Your task to perform on an android device: Open my contact list Image 0: 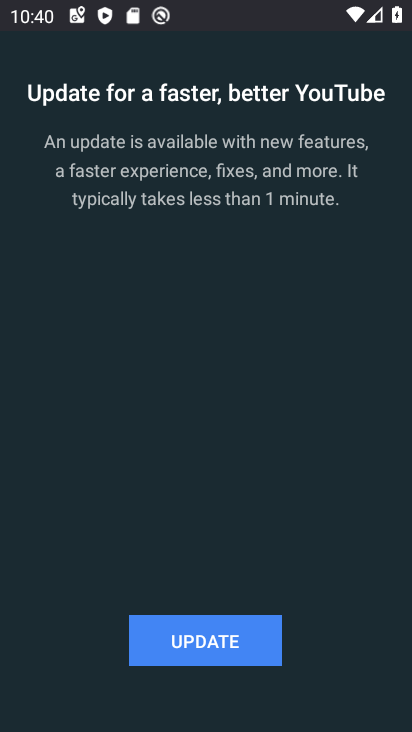
Step 0: press home button
Your task to perform on an android device: Open my contact list Image 1: 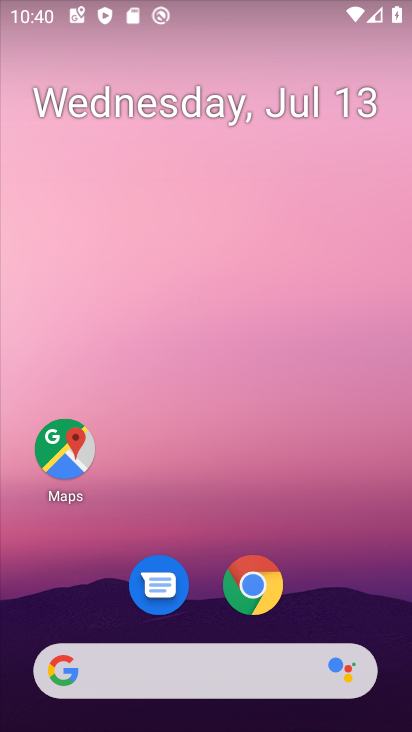
Step 1: drag from (332, 612) to (309, 74)
Your task to perform on an android device: Open my contact list Image 2: 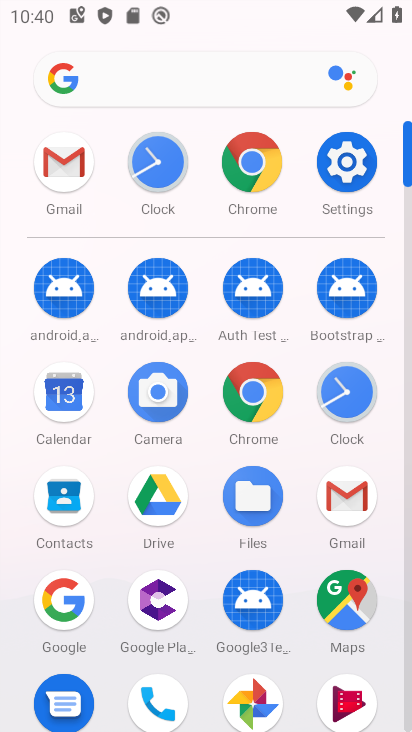
Step 2: click (74, 493)
Your task to perform on an android device: Open my contact list Image 3: 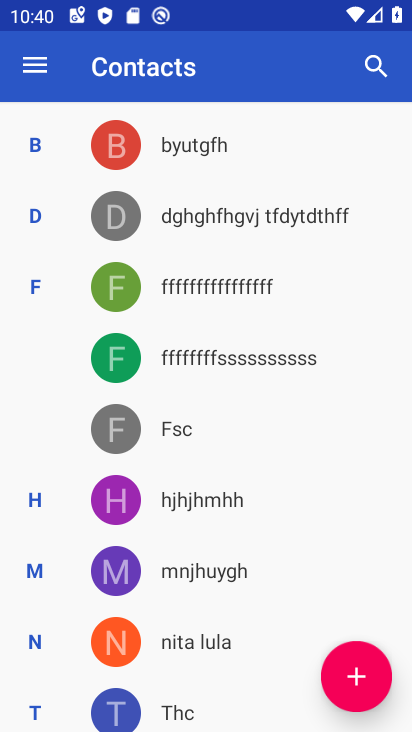
Step 3: task complete